Your task to perform on an android device: What's the latest news in space exploration? Image 0: 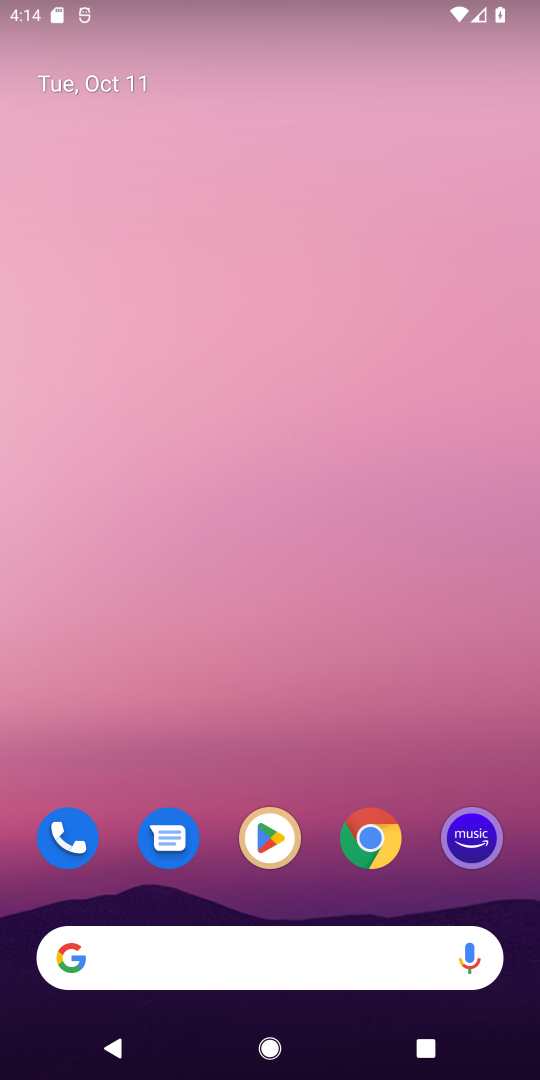
Step 0: click (383, 842)
Your task to perform on an android device: What's the latest news in space exploration? Image 1: 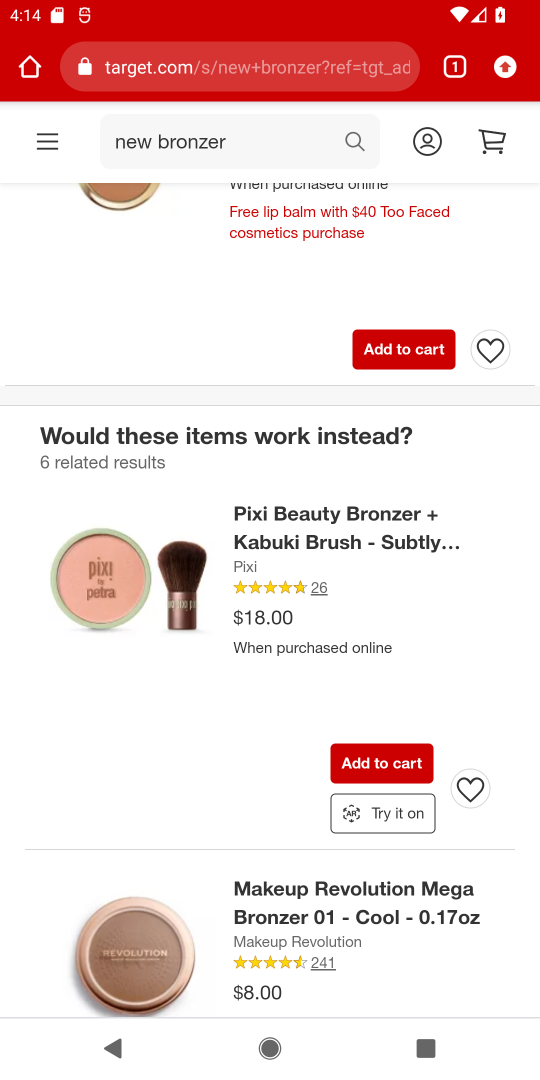
Step 1: click (178, 76)
Your task to perform on an android device: What's the latest news in space exploration? Image 2: 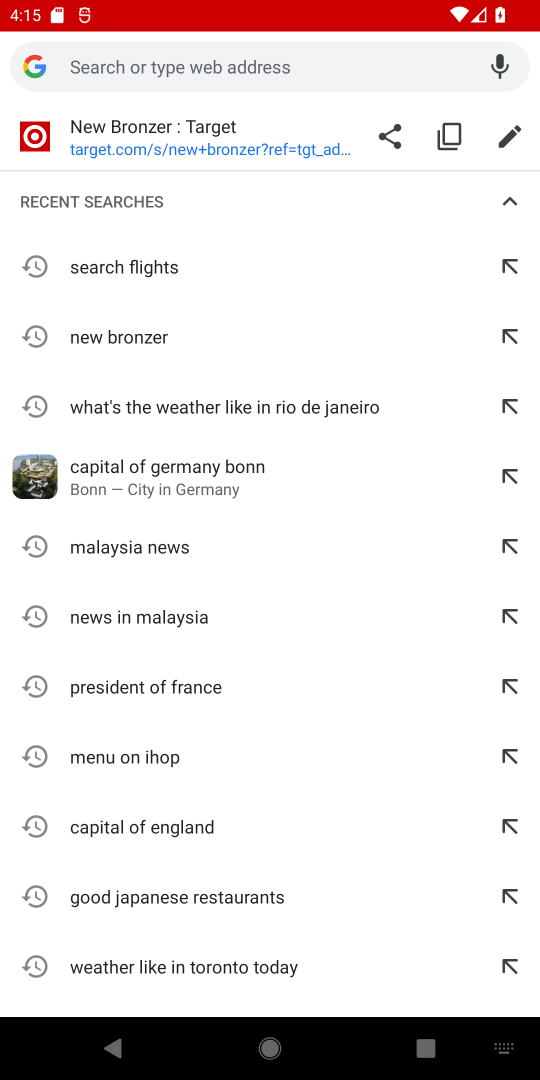
Step 2: type "latest news in space exploration"
Your task to perform on an android device: What's the latest news in space exploration? Image 3: 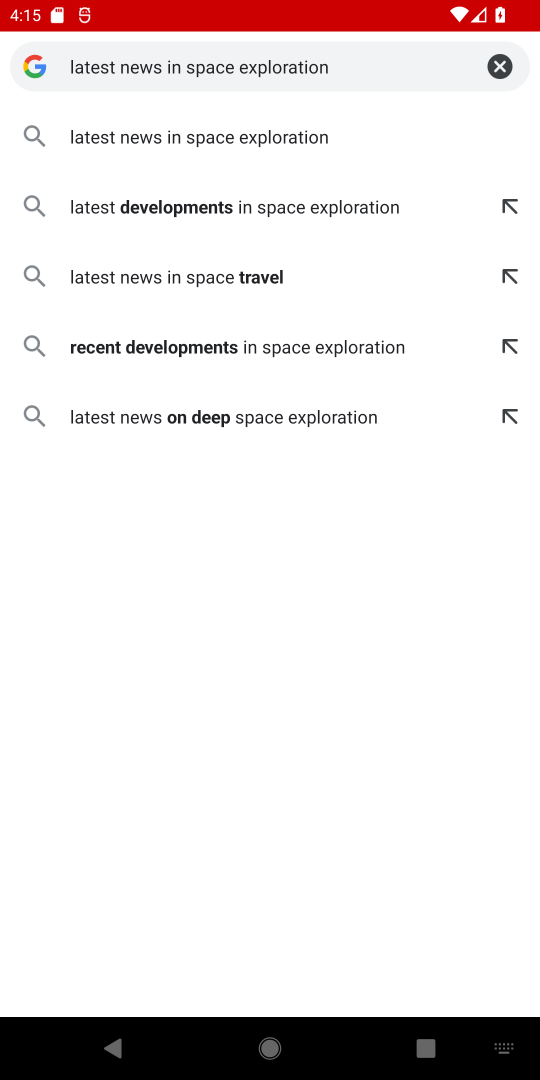
Step 3: click (244, 129)
Your task to perform on an android device: What's the latest news in space exploration? Image 4: 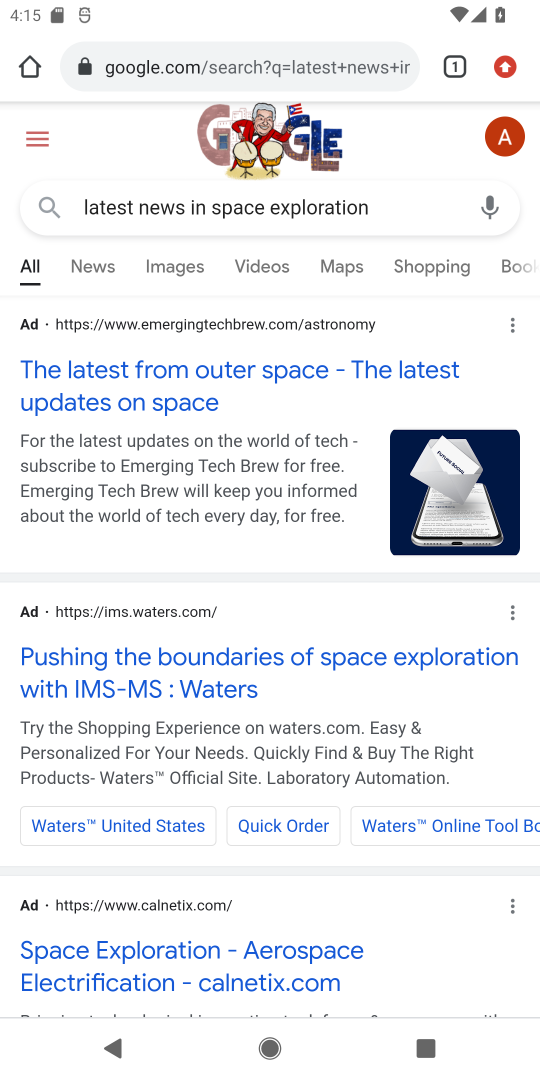
Step 4: click (162, 367)
Your task to perform on an android device: What's the latest news in space exploration? Image 5: 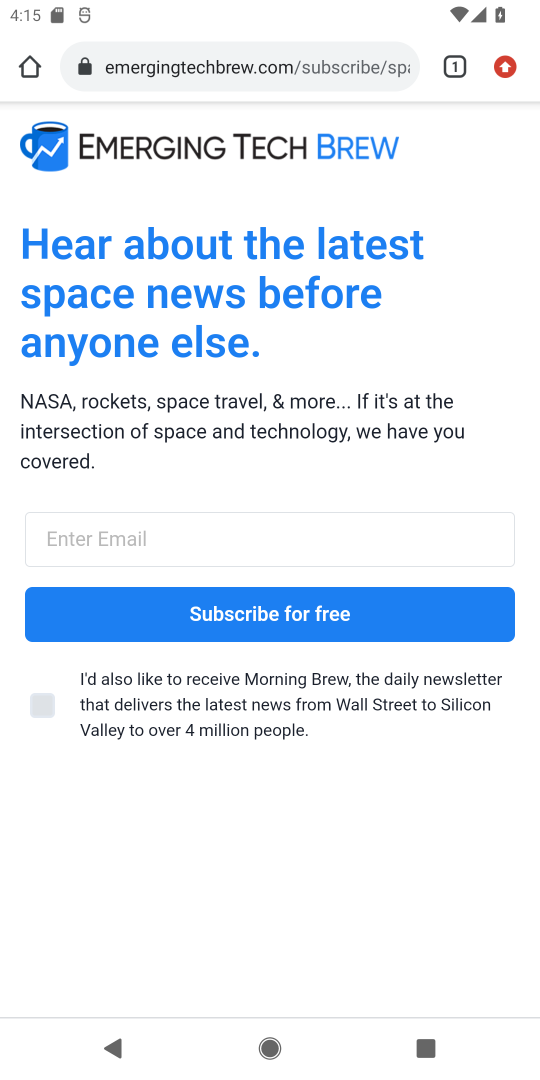
Step 5: press back button
Your task to perform on an android device: What's the latest news in space exploration? Image 6: 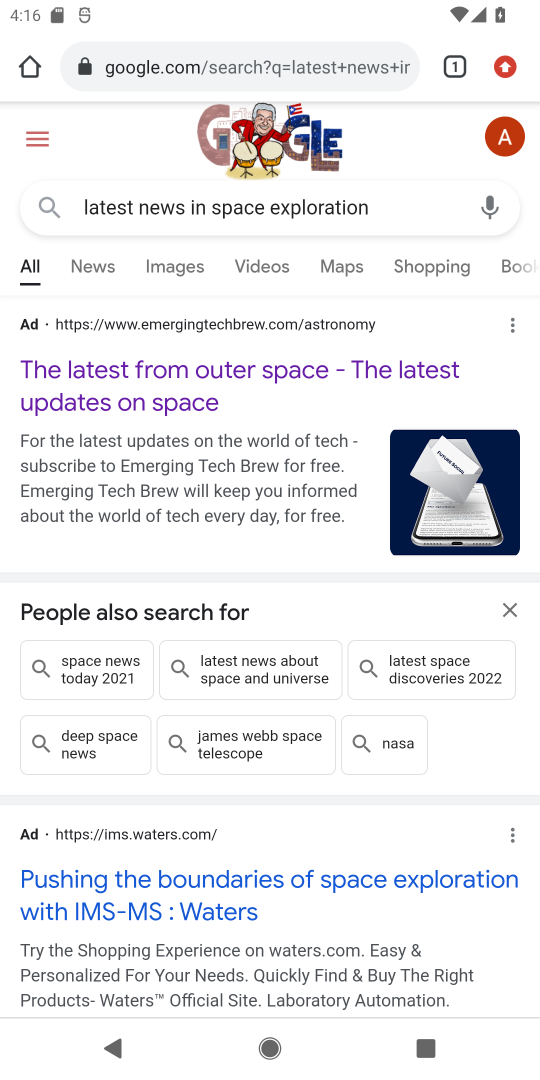
Step 6: drag from (416, 746) to (464, 342)
Your task to perform on an android device: What's the latest news in space exploration? Image 7: 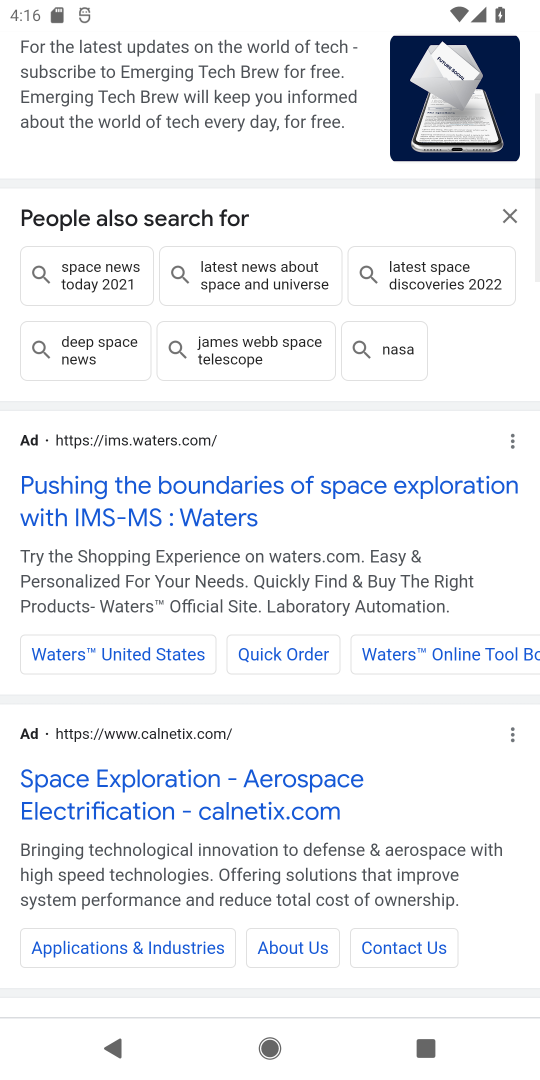
Step 7: drag from (305, 706) to (345, 379)
Your task to perform on an android device: What's the latest news in space exploration? Image 8: 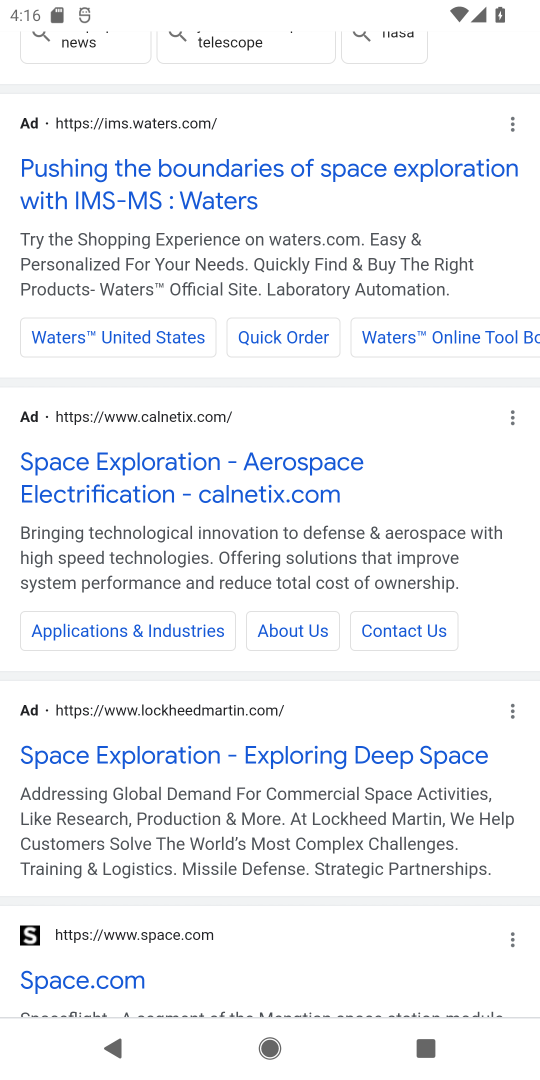
Step 8: click (144, 460)
Your task to perform on an android device: What's the latest news in space exploration? Image 9: 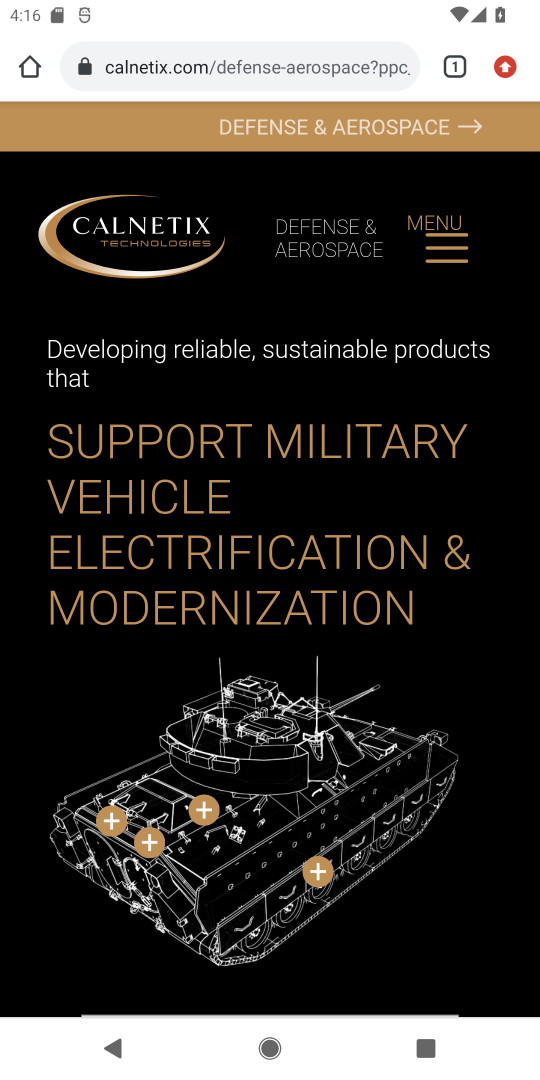
Step 9: task complete